Your task to perform on an android device: Set the phone to "Do not disturb". Image 0: 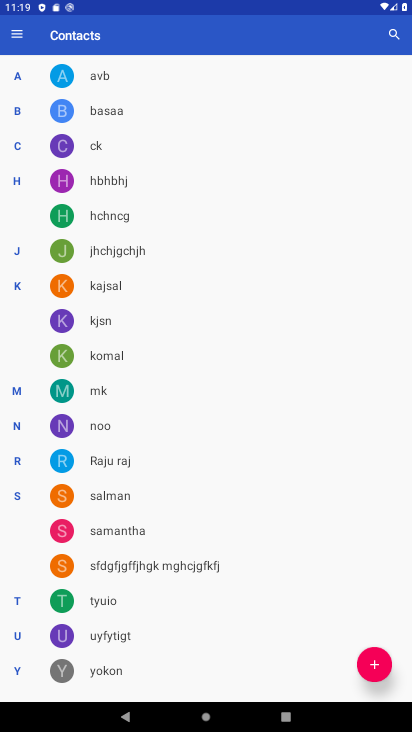
Step 0: press back button
Your task to perform on an android device: Set the phone to "Do not disturb". Image 1: 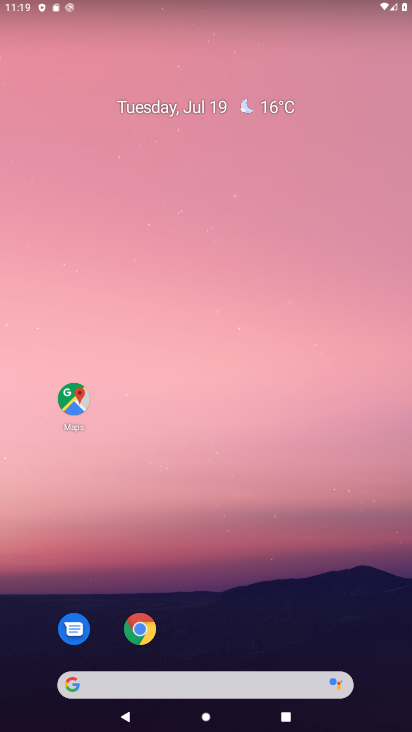
Step 1: drag from (396, 709) to (332, 166)
Your task to perform on an android device: Set the phone to "Do not disturb". Image 2: 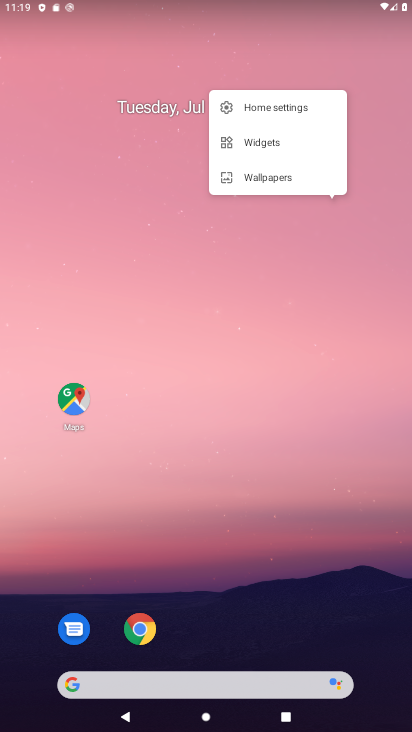
Step 2: press back button
Your task to perform on an android device: Set the phone to "Do not disturb". Image 3: 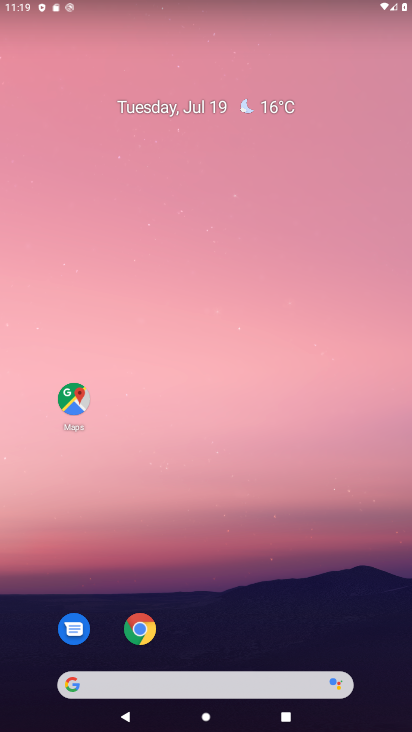
Step 3: drag from (383, 703) to (333, 117)
Your task to perform on an android device: Set the phone to "Do not disturb". Image 4: 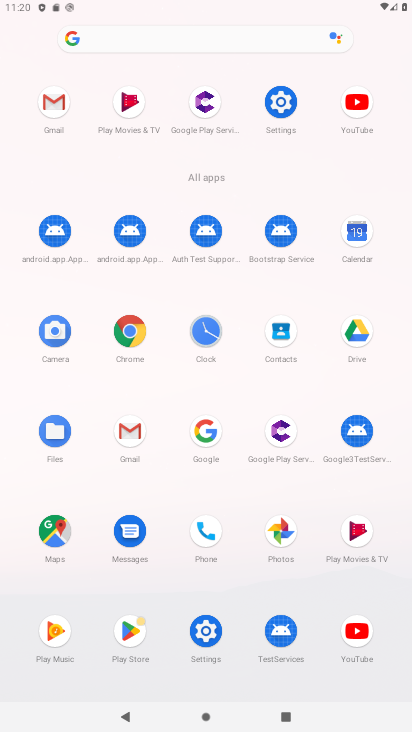
Step 4: click (266, 109)
Your task to perform on an android device: Set the phone to "Do not disturb". Image 5: 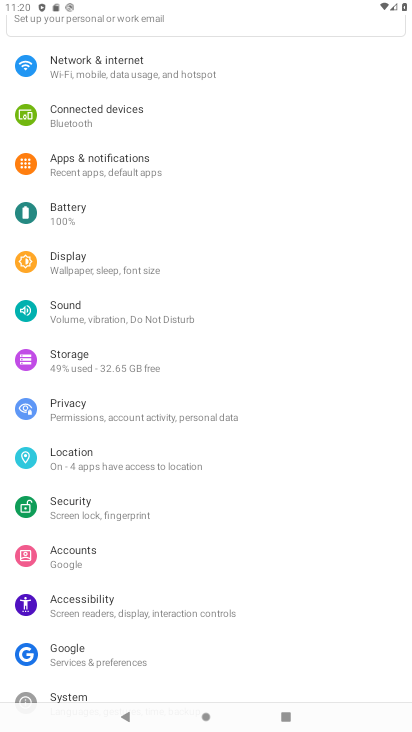
Step 5: click (72, 314)
Your task to perform on an android device: Set the phone to "Do not disturb". Image 6: 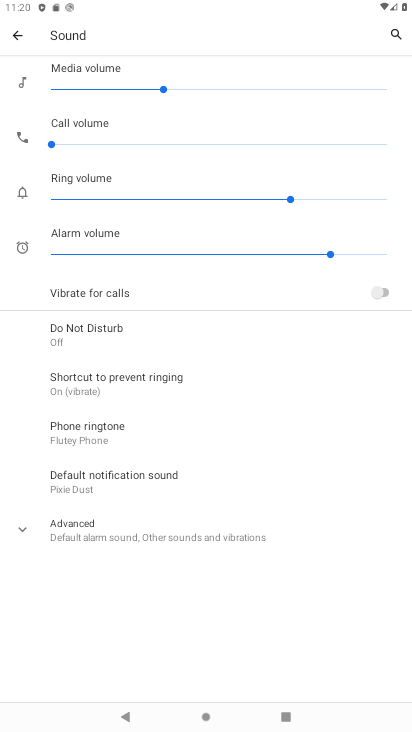
Step 6: click (65, 335)
Your task to perform on an android device: Set the phone to "Do not disturb". Image 7: 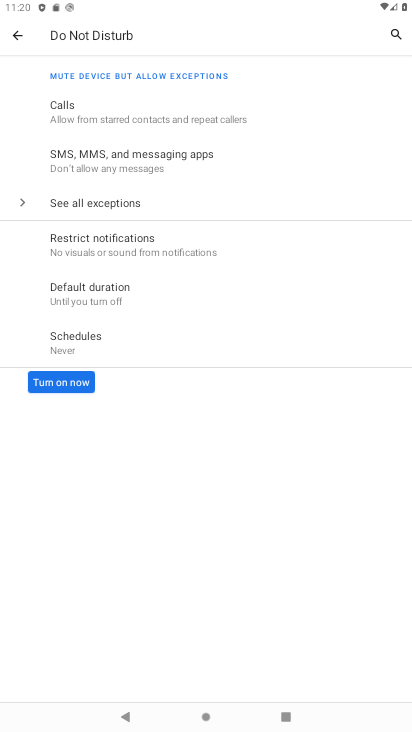
Step 7: click (62, 377)
Your task to perform on an android device: Set the phone to "Do not disturb". Image 8: 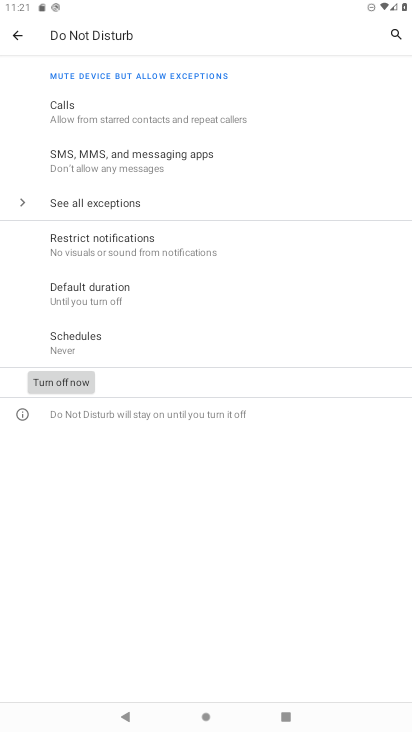
Step 8: click (31, 384)
Your task to perform on an android device: Set the phone to "Do not disturb". Image 9: 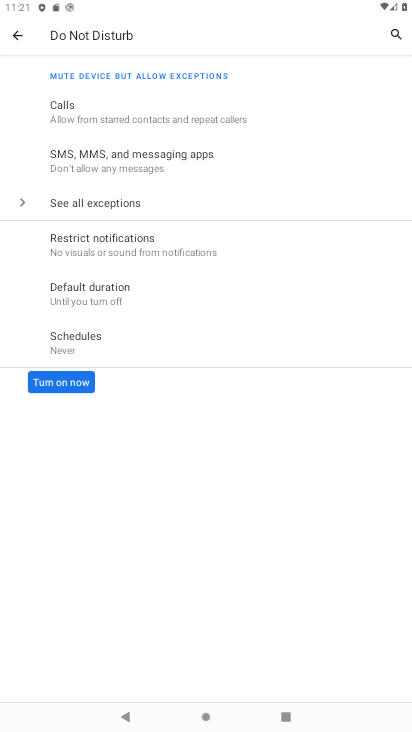
Step 9: task complete